Your task to perform on an android device: Open the Play Movies app and select the watchlist tab. Image 0: 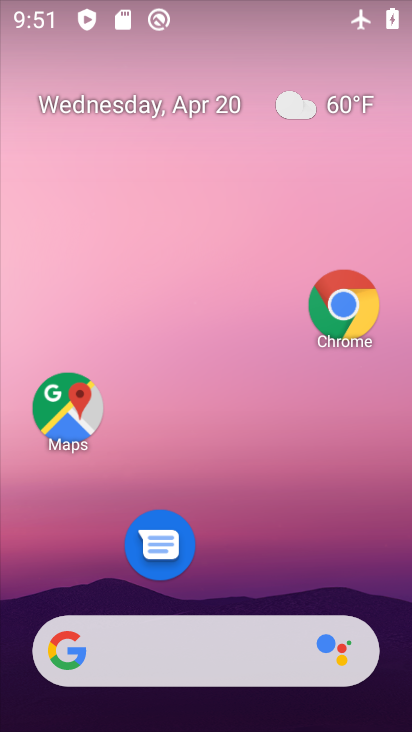
Step 0: drag from (256, 603) to (233, 200)
Your task to perform on an android device: Open the Play Movies app and select the watchlist tab. Image 1: 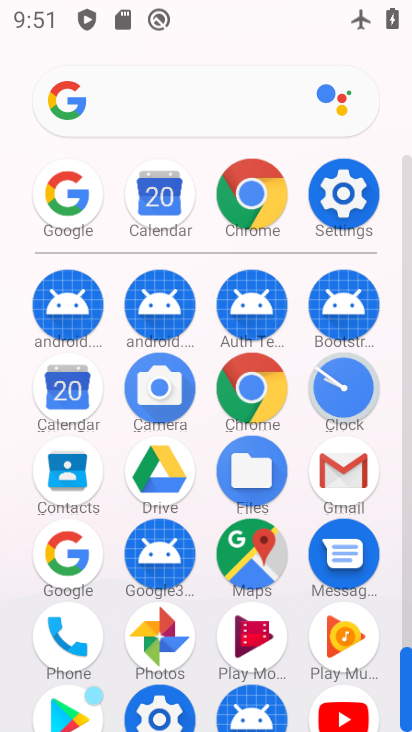
Step 1: drag from (260, 527) to (291, 363)
Your task to perform on an android device: Open the Play Movies app and select the watchlist tab. Image 2: 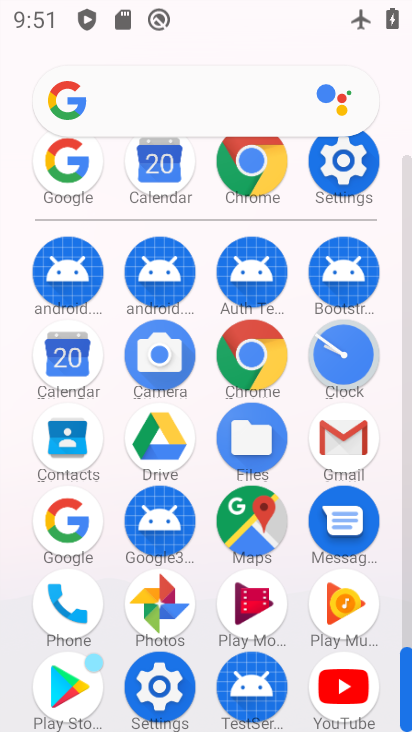
Step 2: click (255, 601)
Your task to perform on an android device: Open the Play Movies app and select the watchlist tab. Image 3: 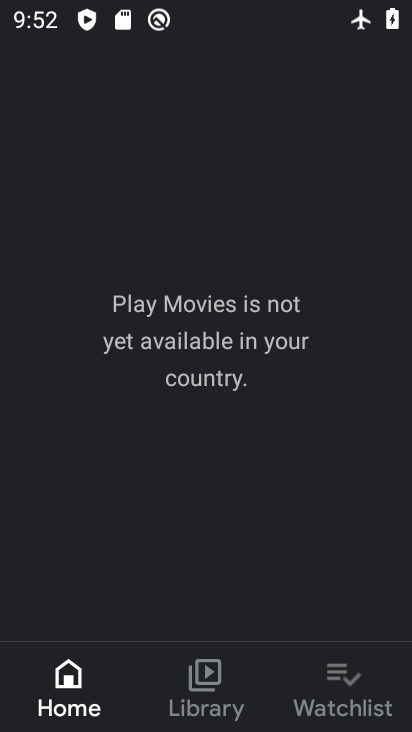
Step 3: click (328, 705)
Your task to perform on an android device: Open the Play Movies app and select the watchlist tab. Image 4: 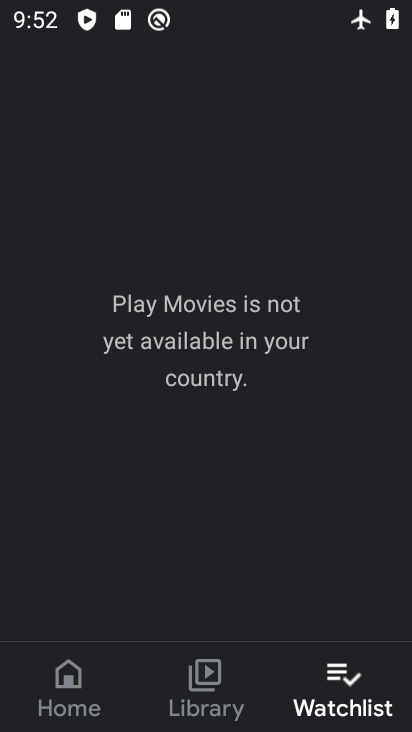
Step 4: task complete